Your task to perform on an android device: turn on notifications settings in the gmail app Image 0: 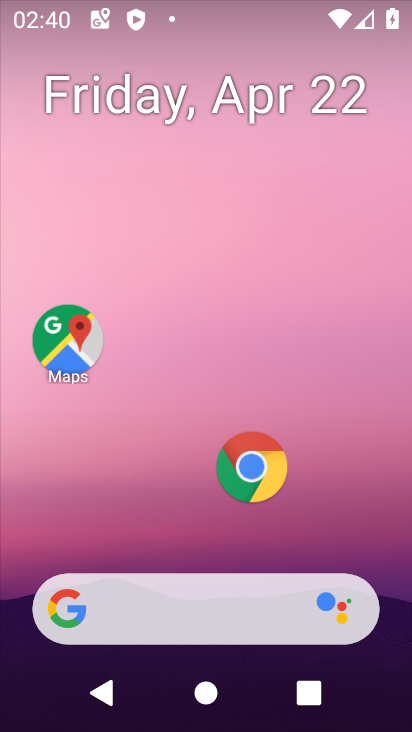
Step 0: drag from (125, 521) to (197, 132)
Your task to perform on an android device: turn on notifications settings in the gmail app Image 1: 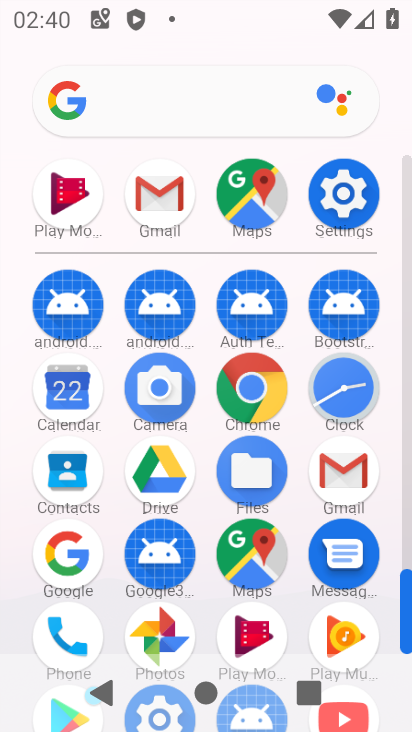
Step 1: click (168, 180)
Your task to perform on an android device: turn on notifications settings in the gmail app Image 2: 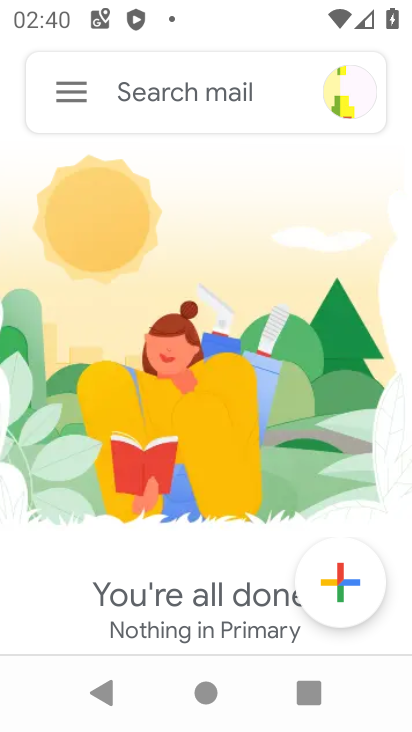
Step 2: click (59, 86)
Your task to perform on an android device: turn on notifications settings in the gmail app Image 3: 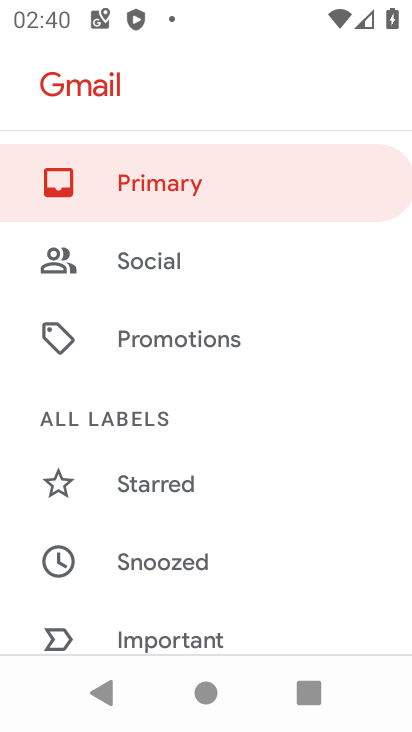
Step 3: drag from (155, 618) to (193, 173)
Your task to perform on an android device: turn on notifications settings in the gmail app Image 4: 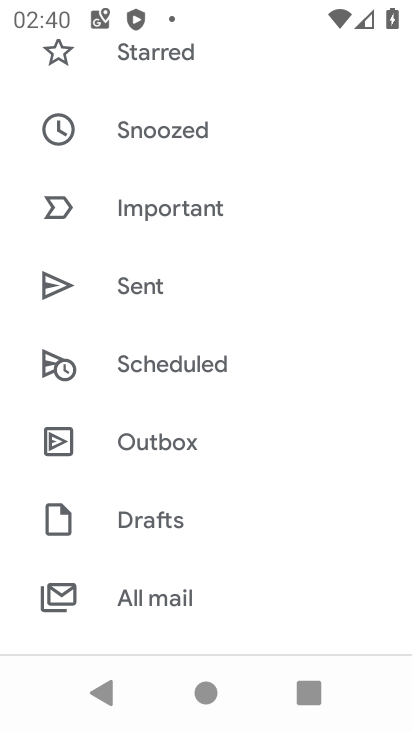
Step 4: drag from (166, 606) to (220, 234)
Your task to perform on an android device: turn on notifications settings in the gmail app Image 5: 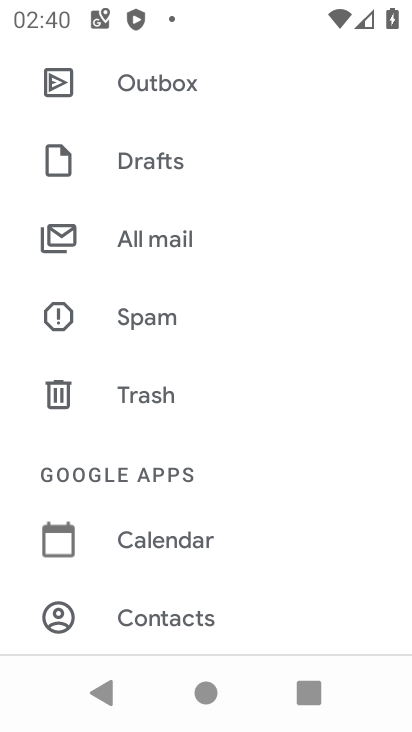
Step 5: drag from (168, 601) to (217, 242)
Your task to perform on an android device: turn on notifications settings in the gmail app Image 6: 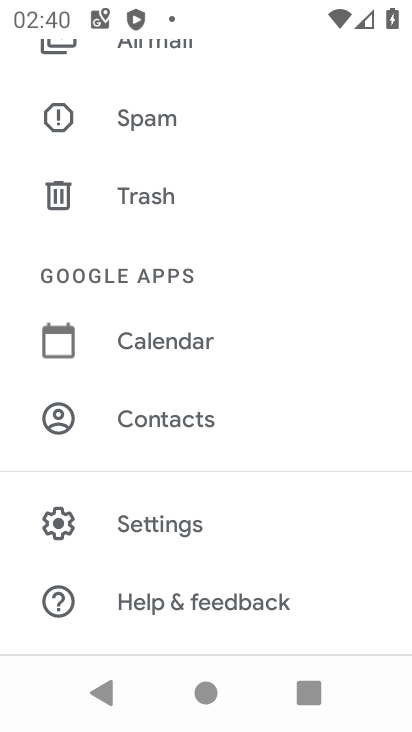
Step 6: click (160, 532)
Your task to perform on an android device: turn on notifications settings in the gmail app Image 7: 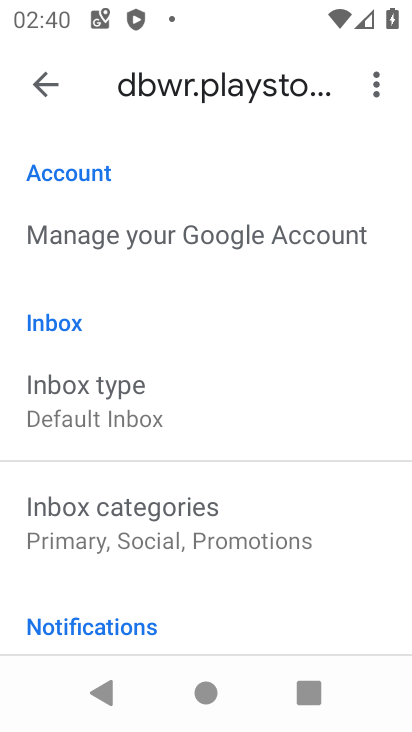
Step 7: drag from (141, 589) to (218, 245)
Your task to perform on an android device: turn on notifications settings in the gmail app Image 8: 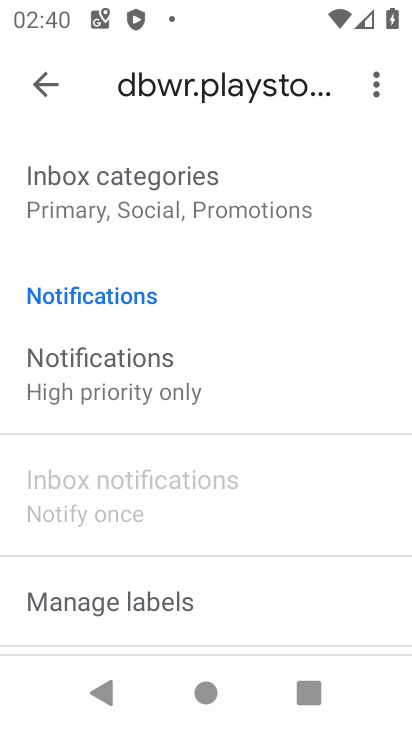
Step 8: click (147, 384)
Your task to perform on an android device: turn on notifications settings in the gmail app Image 9: 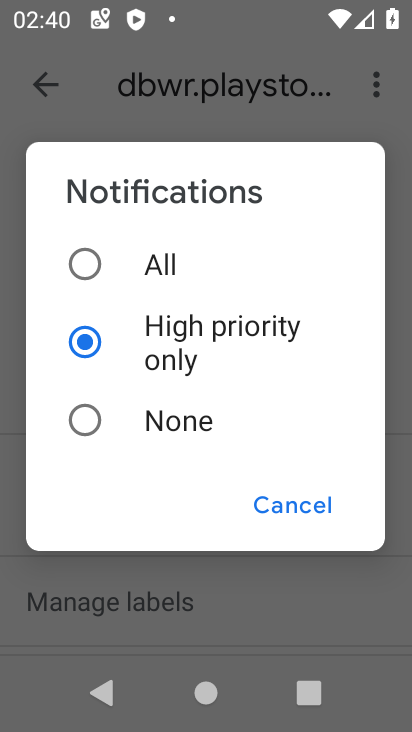
Step 9: click (101, 262)
Your task to perform on an android device: turn on notifications settings in the gmail app Image 10: 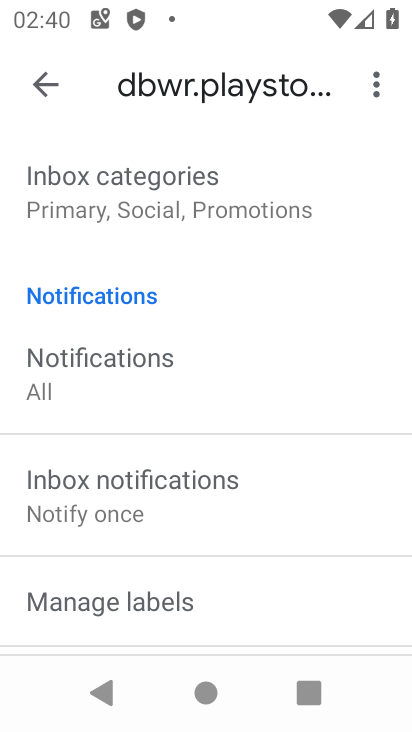
Step 10: task complete